Your task to perform on an android device: Open ESPN.com Image 0: 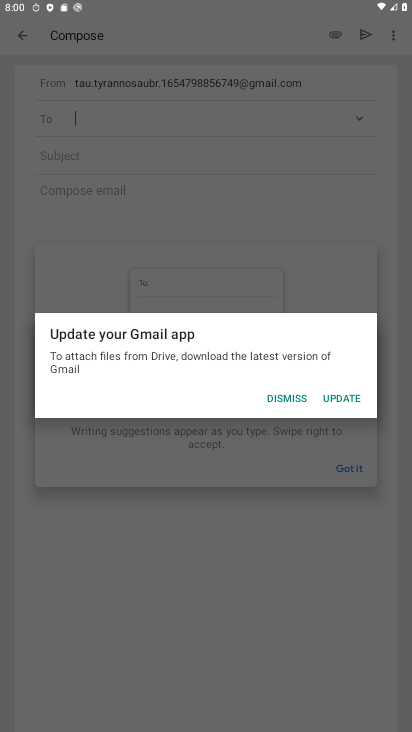
Step 0: click (298, 400)
Your task to perform on an android device: Open ESPN.com Image 1: 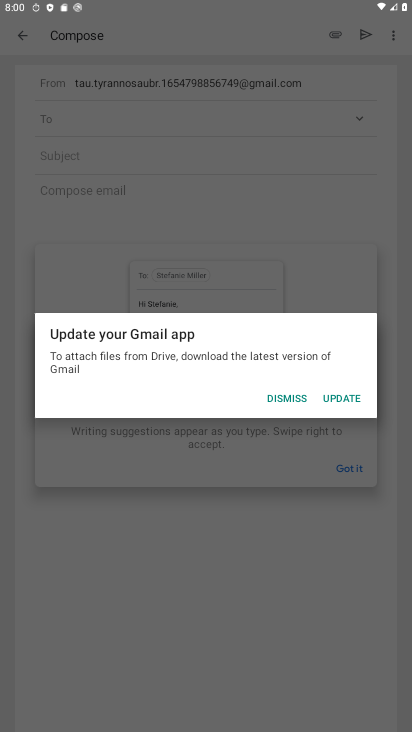
Step 1: click (298, 399)
Your task to perform on an android device: Open ESPN.com Image 2: 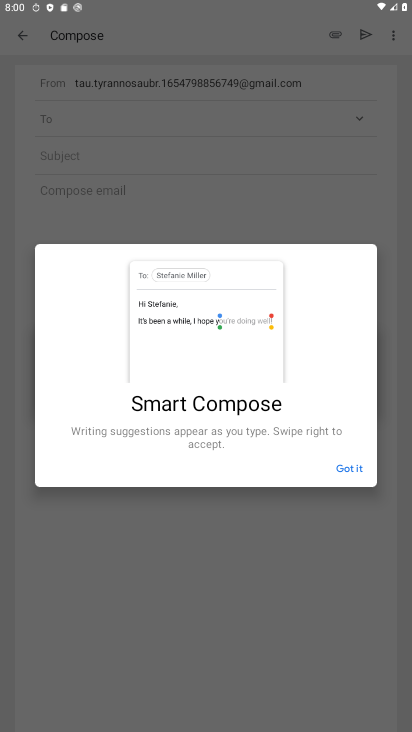
Step 2: click (365, 458)
Your task to perform on an android device: Open ESPN.com Image 3: 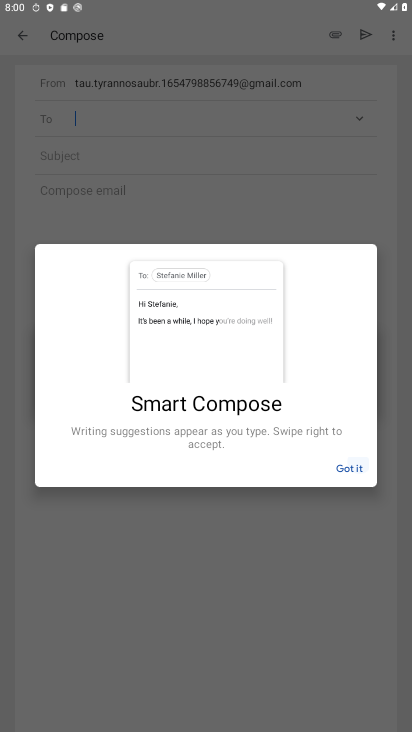
Step 3: click (365, 458)
Your task to perform on an android device: Open ESPN.com Image 4: 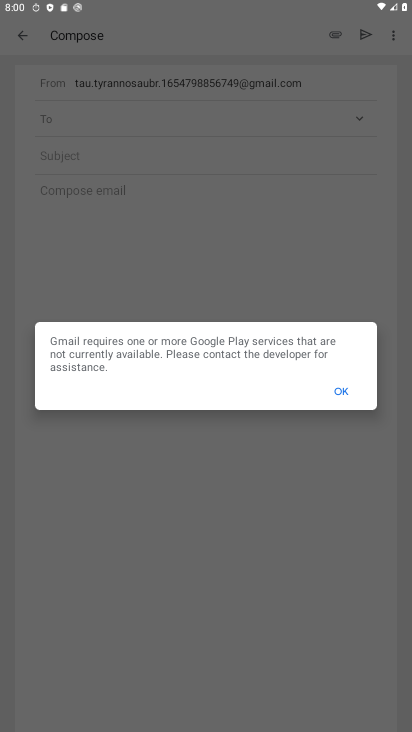
Step 4: drag from (365, 458) to (335, 385)
Your task to perform on an android device: Open ESPN.com Image 5: 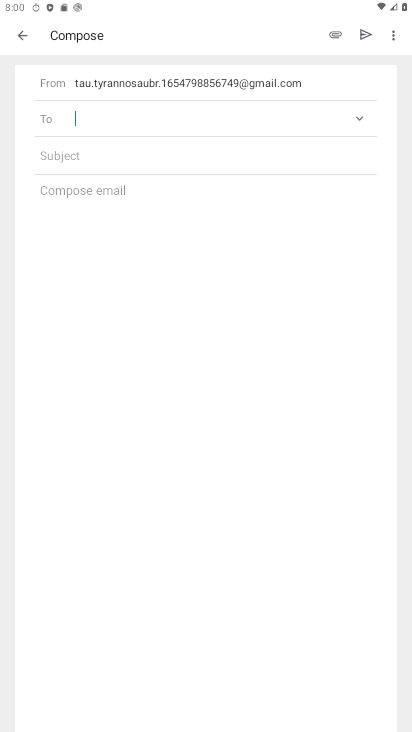
Step 5: click (342, 393)
Your task to perform on an android device: Open ESPN.com Image 6: 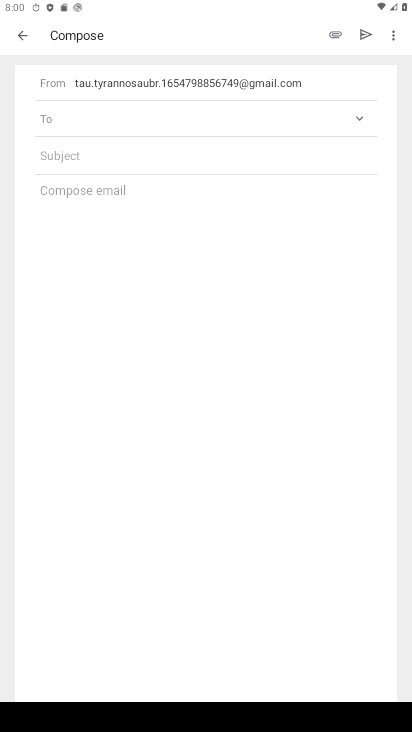
Step 6: click (16, 39)
Your task to perform on an android device: Open ESPN.com Image 7: 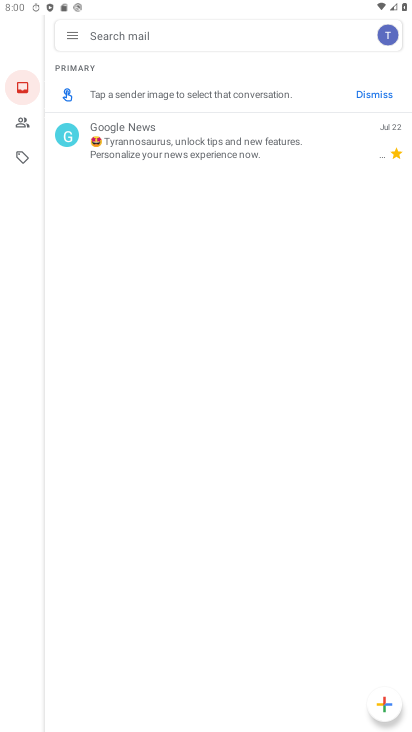
Step 7: press back button
Your task to perform on an android device: Open ESPN.com Image 8: 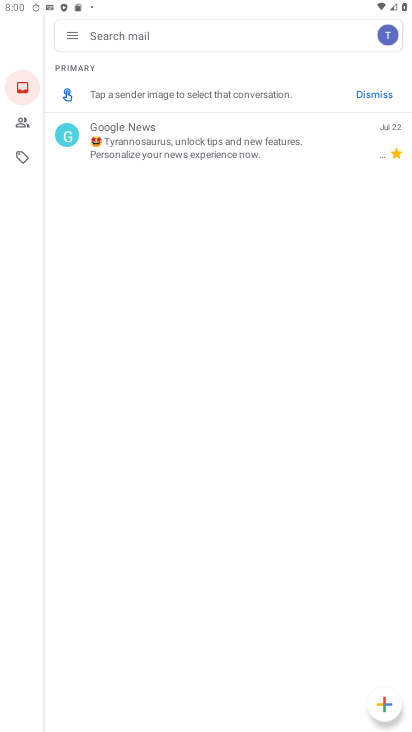
Step 8: press back button
Your task to perform on an android device: Open ESPN.com Image 9: 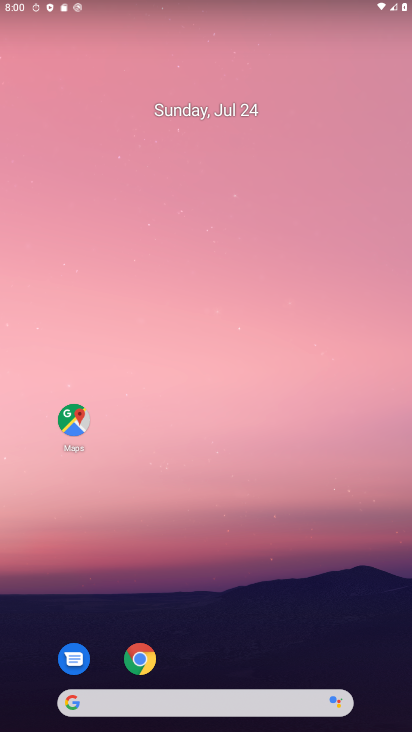
Step 9: drag from (265, 661) to (230, 222)
Your task to perform on an android device: Open ESPN.com Image 10: 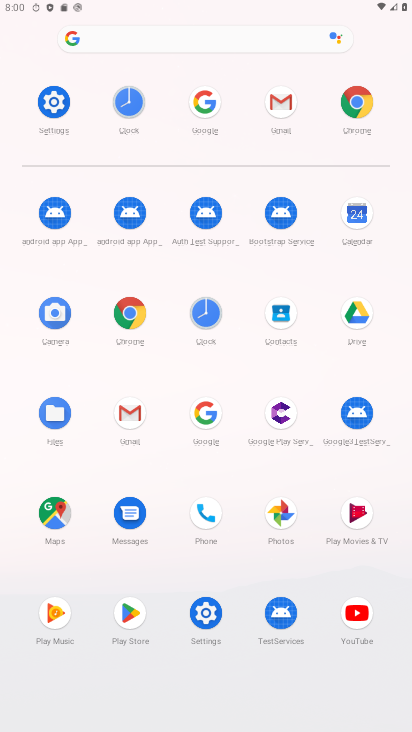
Step 10: click (119, 313)
Your task to perform on an android device: Open ESPN.com Image 11: 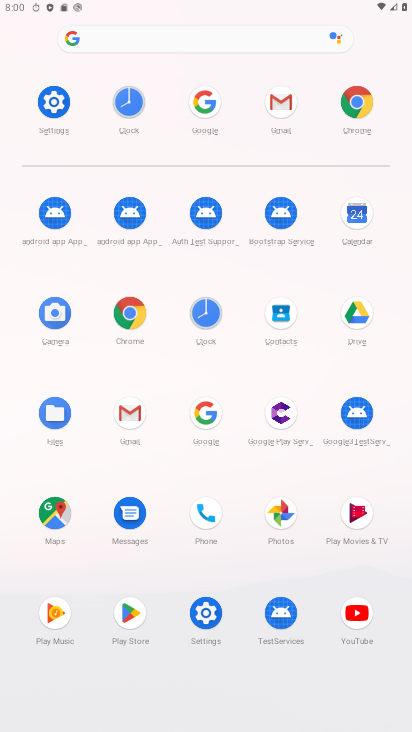
Step 11: click (125, 314)
Your task to perform on an android device: Open ESPN.com Image 12: 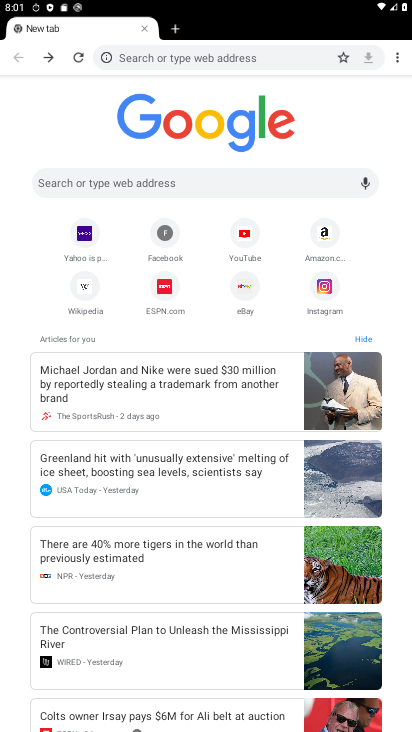
Step 12: click (172, 282)
Your task to perform on an android device: Open ESPN.com Image 13: 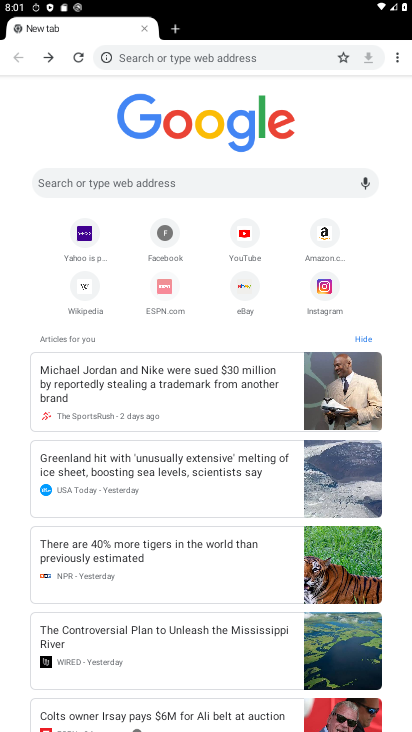
Step 13: click (172, 287)
Your task to perform on an android device: Open ESPN.com Image 14: 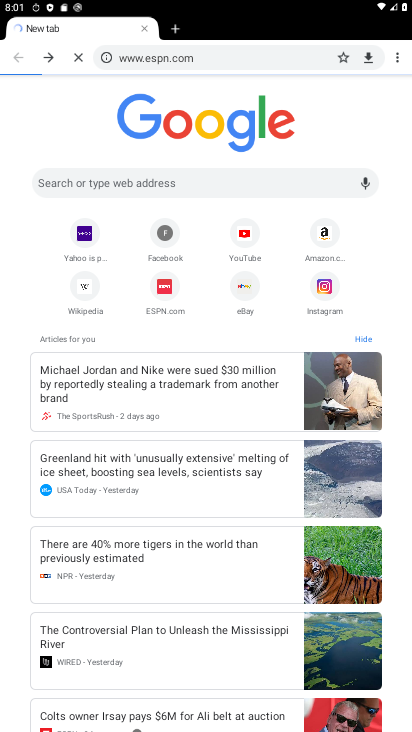
Step 14: click (170, 284)
Your task to perform on an android device: Open ESPN.com Image 15: 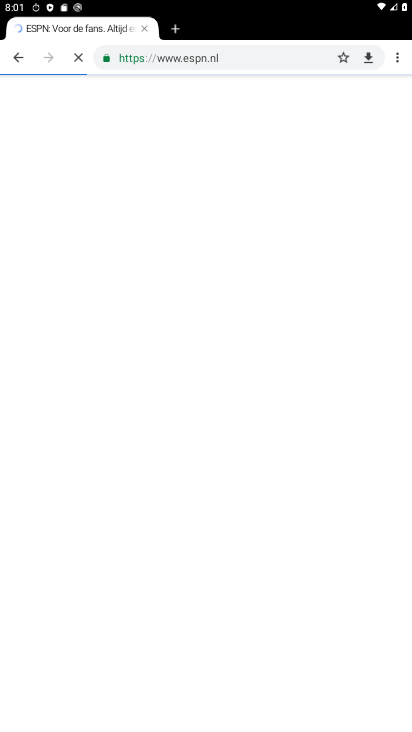
Step 15: task complete